Your task to perform on an android device: Open Google Maps Image 0: 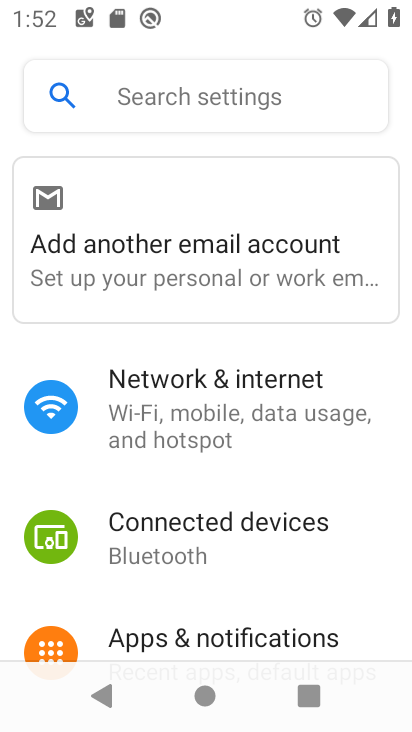
Step 0: press home button
Your task to perform on an android device: Open Google Maps Image 1: 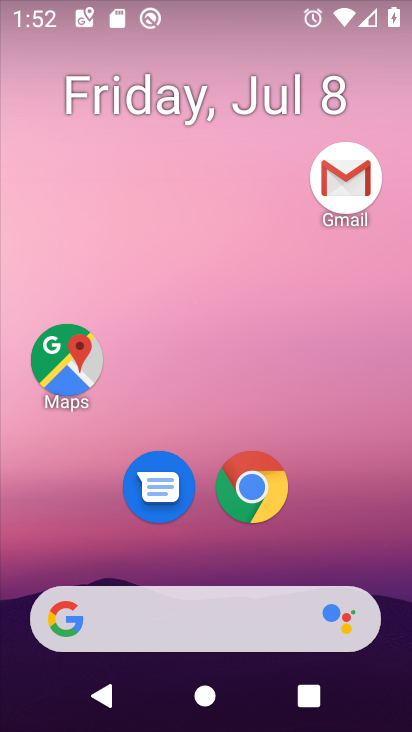
Step 1: drag from (364, 535) to (362, 169)
Your task to perform on an android device: Open Google Maps Image 2: 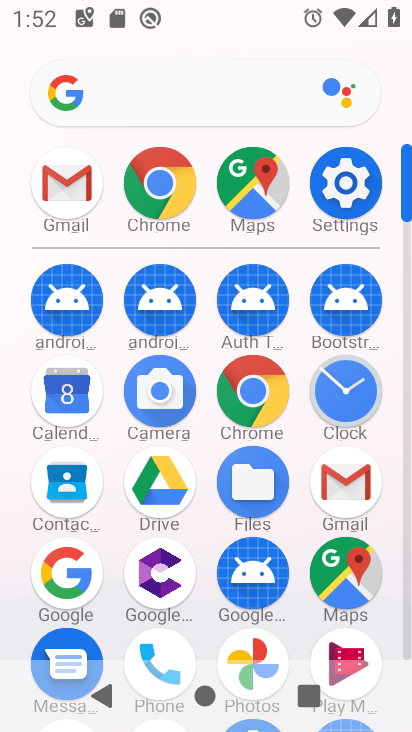
Step 2: click (354, 570)
Your task to perform on an android device: Open Google Maps Image 3: 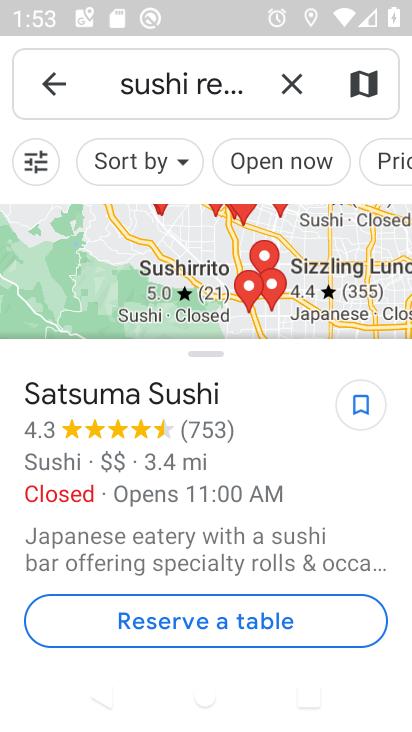
Step 3: task complete